Your task to perform on an android device: Open Google Maps Image 0: 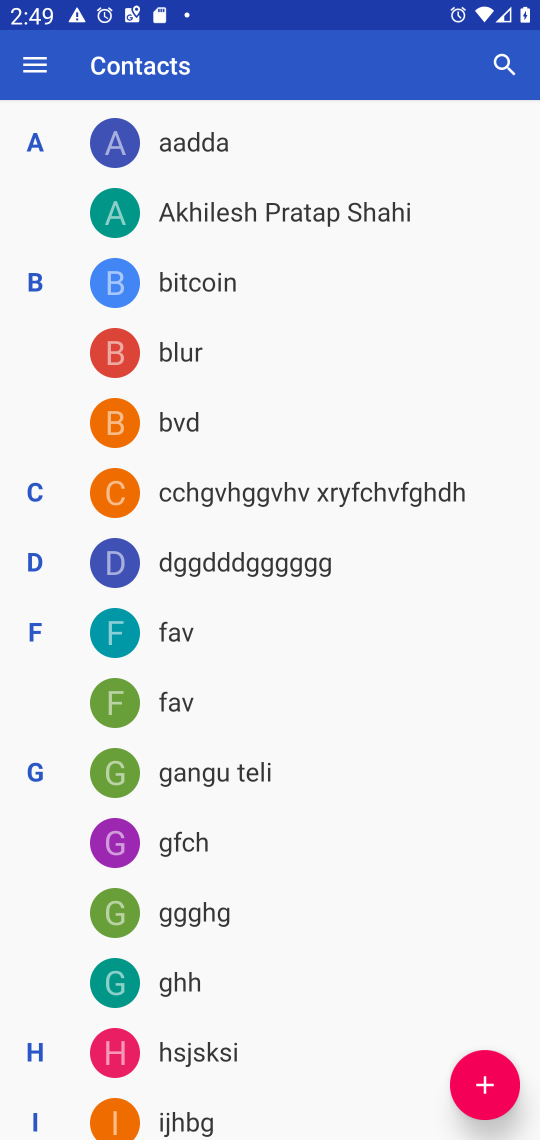
Step 0: press home button
Your task to perform on an android device: Open Google Maps Image 1: 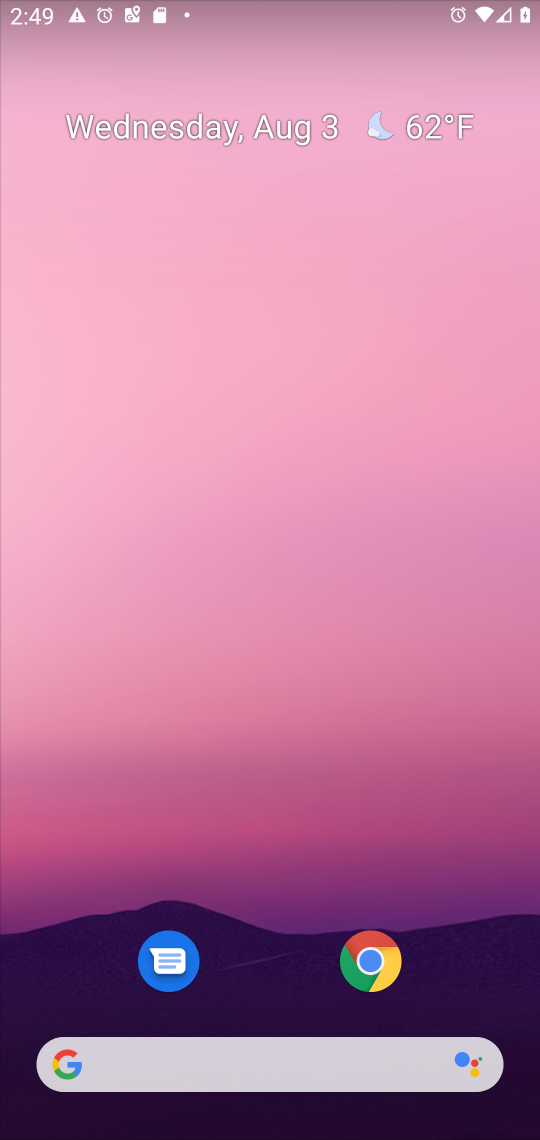
Step 1: drag from (277, 778) to (272, 28)
Your task to perform on an android device: Open Google Maps Image 2: 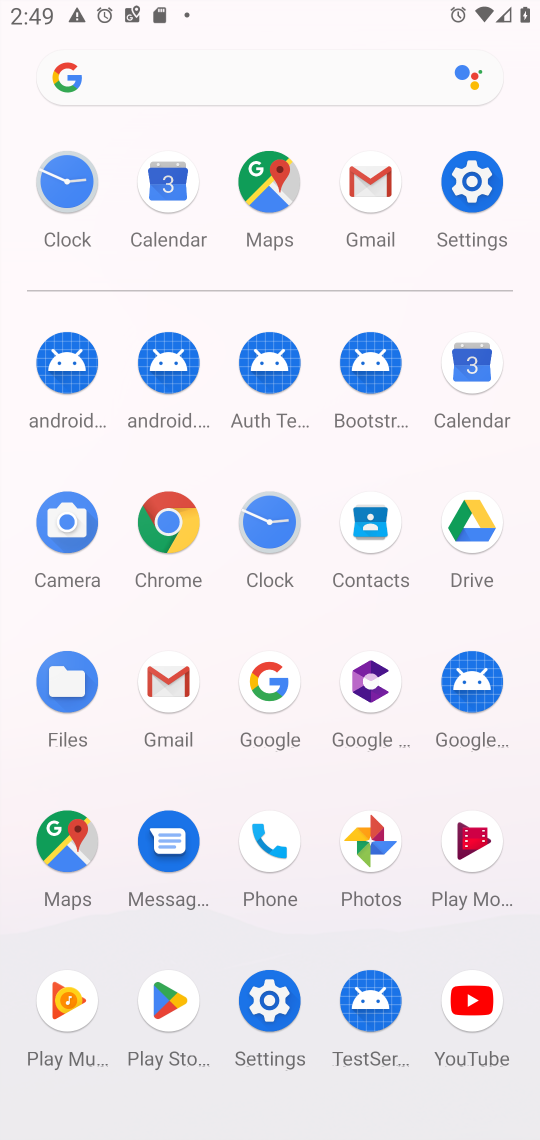
Step 2: click (277, 195)
Your task to perform on an android device: Open Google Maps Image 3: 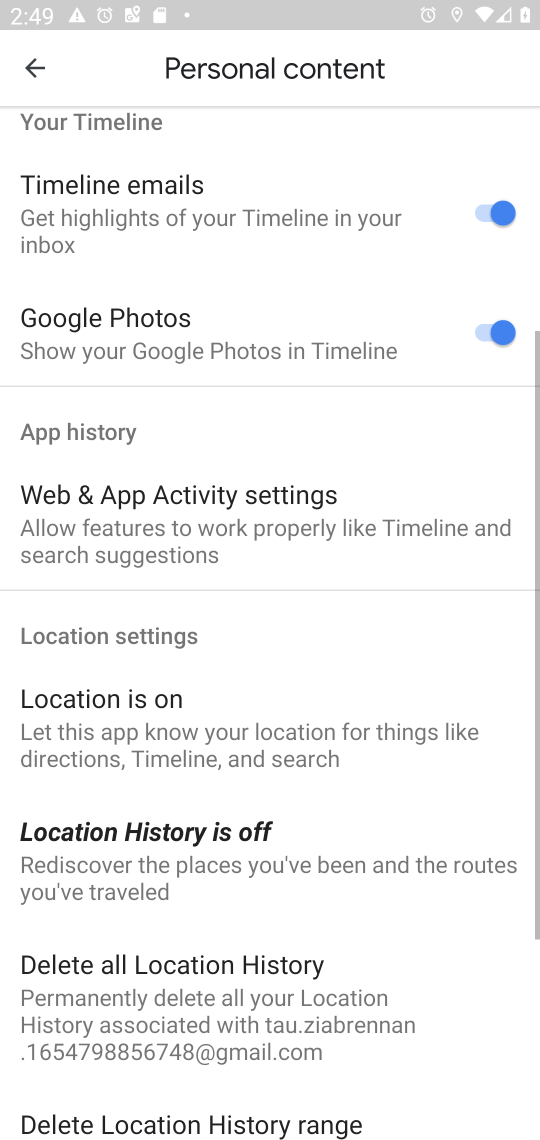
Step 3: task complete